Your task to perform on an android device: Open the map Image 0: 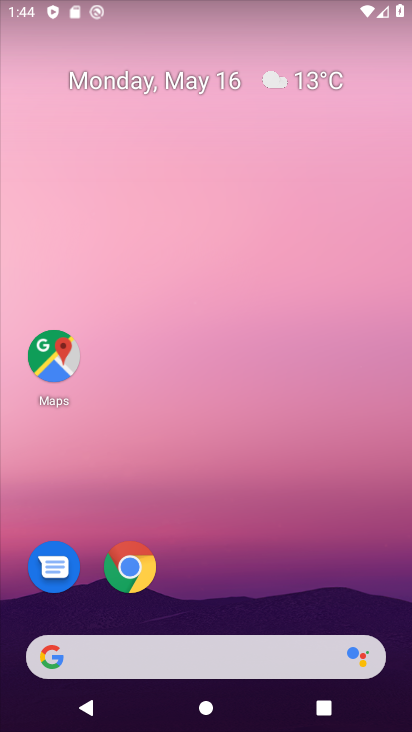
Step 0: click (253, 573)
Your task to perform on an android device: Open the map Image 1: 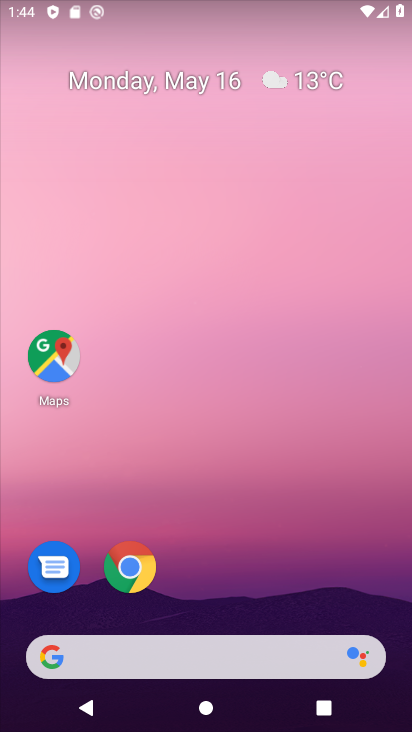
Step 1: click (54, 362)
Your task to perform on an android device: Open the map Image 2: 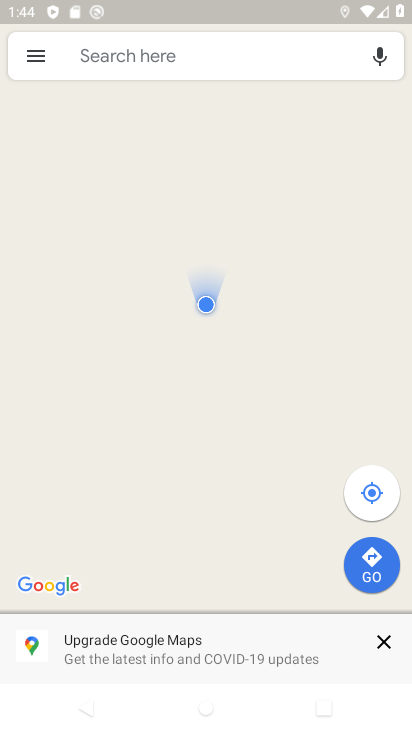
Step 2: click (49, 56)
Your task to perform on an android device: Open the map Image 3: 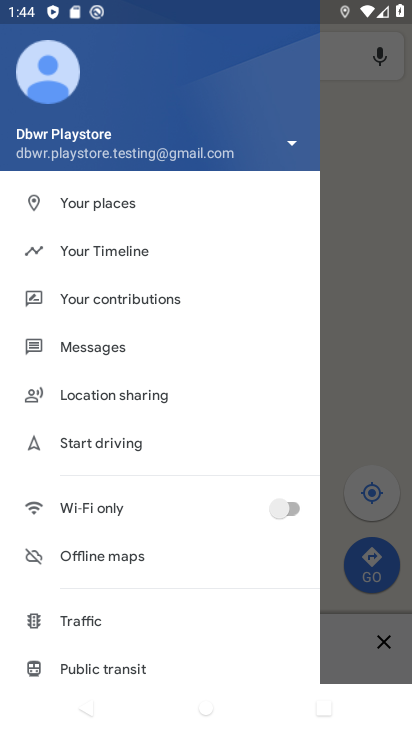
Step 3: click (385, 394)
Your task to perform on an android device: Open the map Image 4: 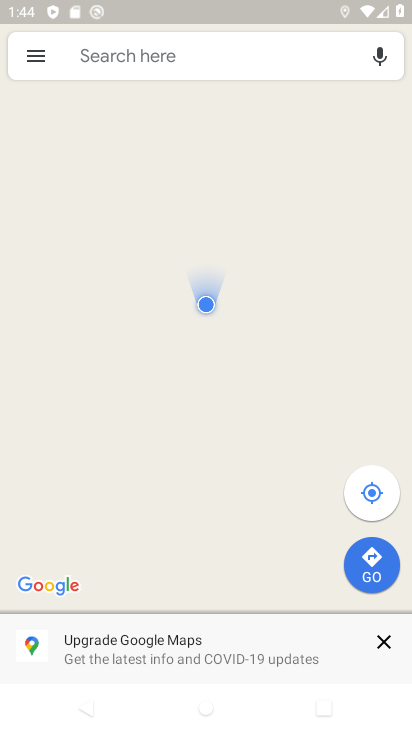
Step 4: task complete